Your task to perform on an android device: What's the weather going to be tomorrow? Image 0: 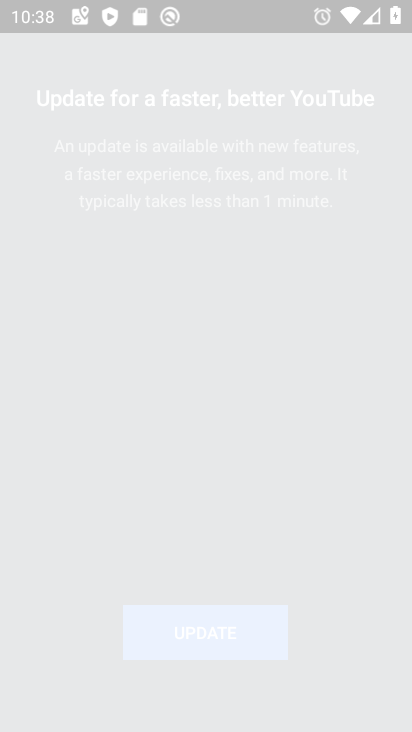
Step 0: drag from (329, 575) to (281, 304)
Your task to perform on an android device: What's the weather going to be tomorrow? Image 1: 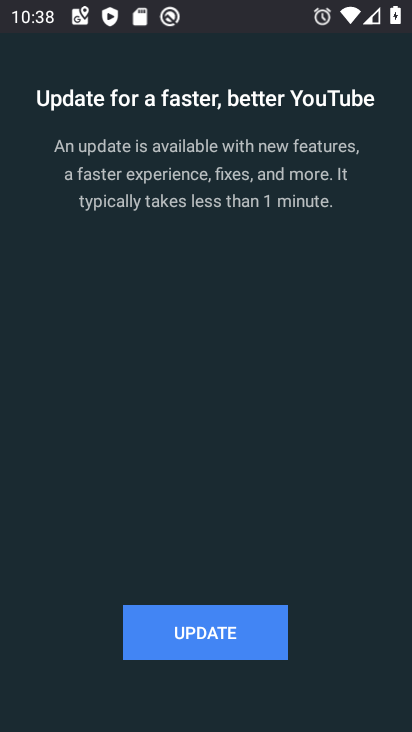
Step 1: press home button
Your task to perform on an android device: What's the weather going to be tomorrow? Image 2: 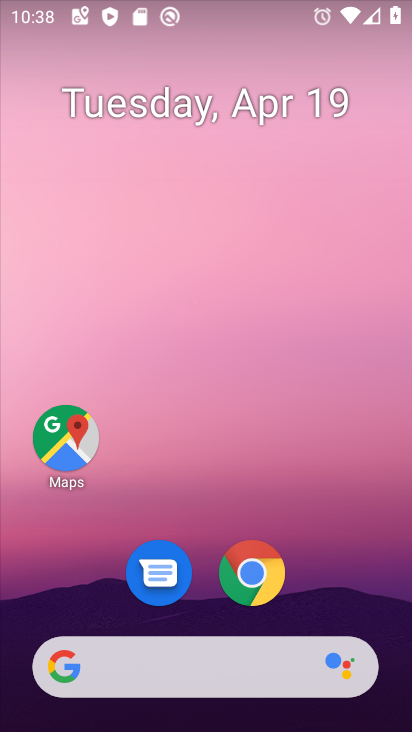
Step 2: click (256, 578)
Your task to perform on an android device: What's the weather going to be tomorrow? Image 3: 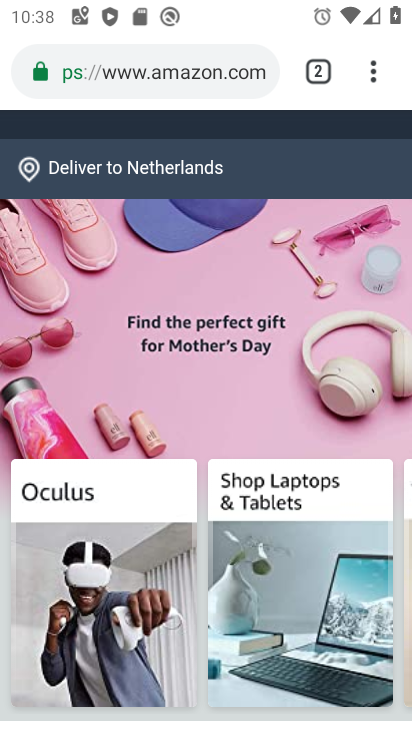
Step 3: click (314, 72)
Your task to perform on an android device: What's the weather going to be tomorrow? Image 4: 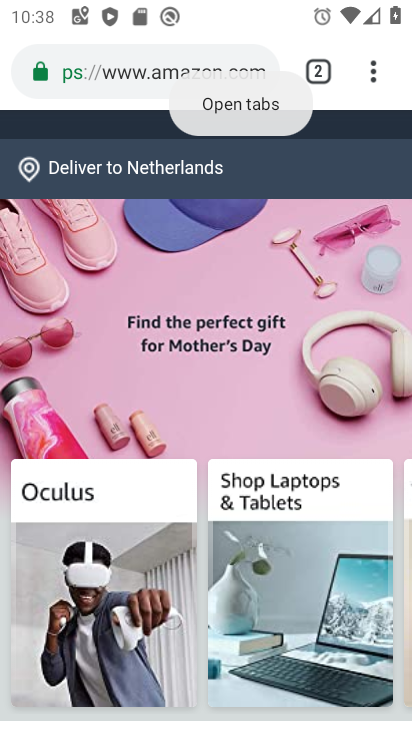
Step 4: click (315, 71)
Your task to perform on an android device: What's the weather going to be tomorrow? Image 5: 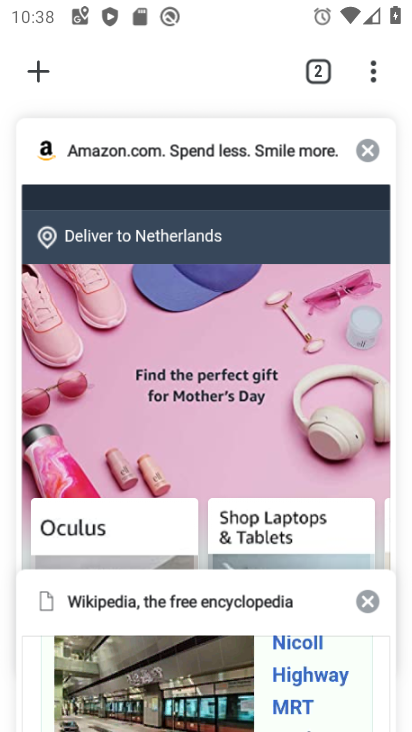
Step 5: click (40, 69)
Your task to perform on an android device: What's the weather going to be tomorrow? Image 6: 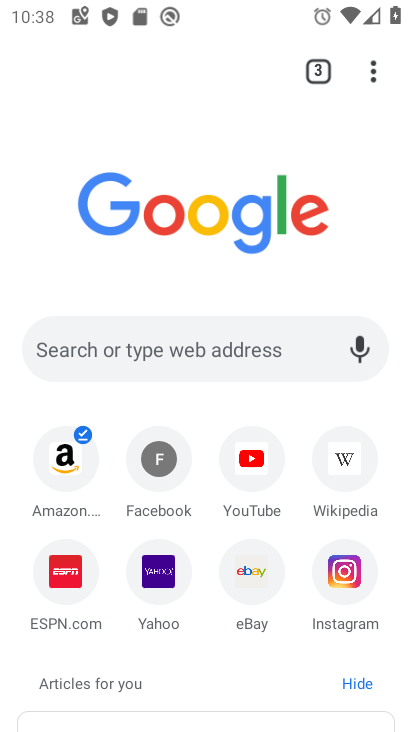
Step 6: click (159, 343)
Your task to perform on an android device: What's the weather going to be tomorrow? Image 7: 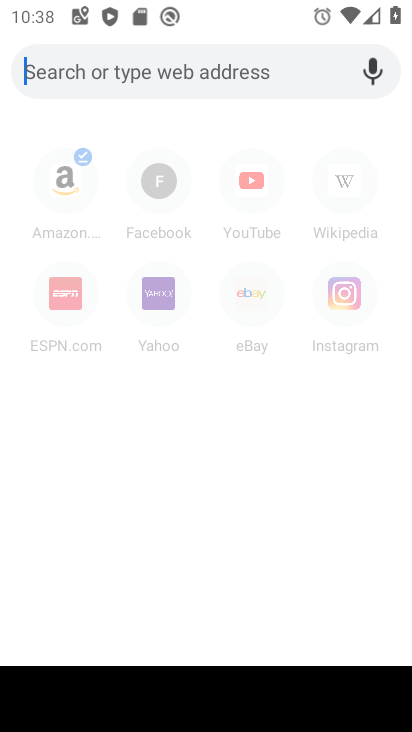
Step 7: type "what's the weather going to be tomorrow"
Your task to perform on an android device: What's the weather going to be tomorrow? Image 8: 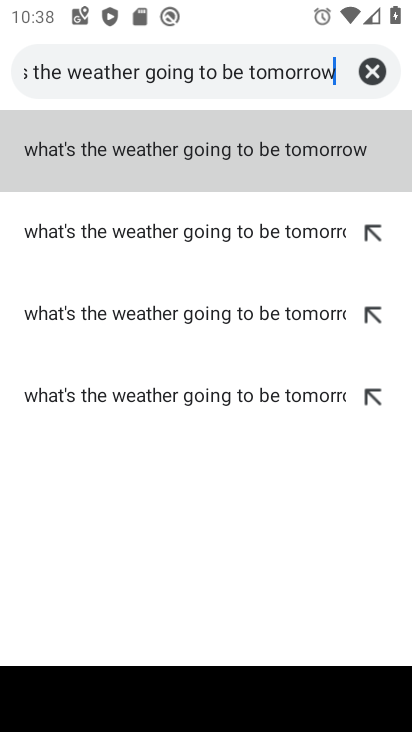
Step 8: click (112, 157)
Your task to perform on an android device: What's the weather going to be tomorrow? Image 9: 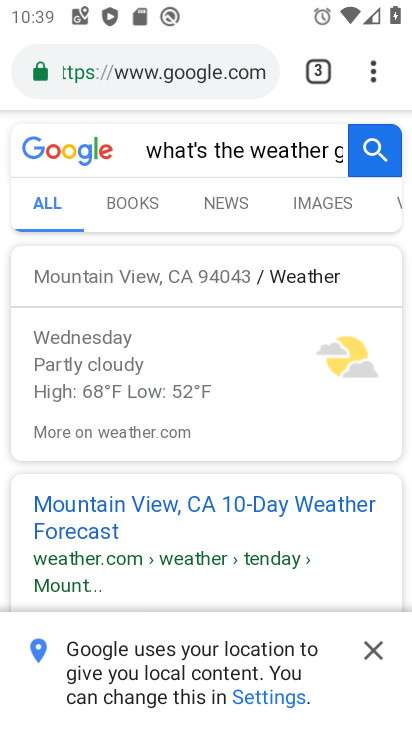
Step 9: drag from (166, 560) to (121, 574)
Your task to perform on an android device: What's the weather going to be tomorrow? Image 10: 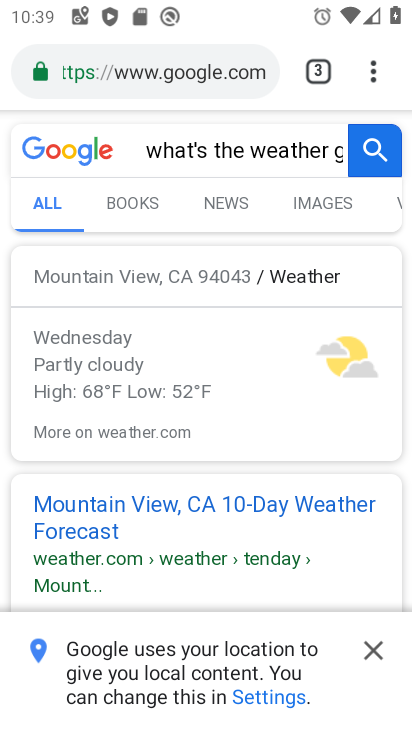
Step 10: click (121, 555)
Your task to perform on an android device: What's the weather going to be tomorrow? Image 11: 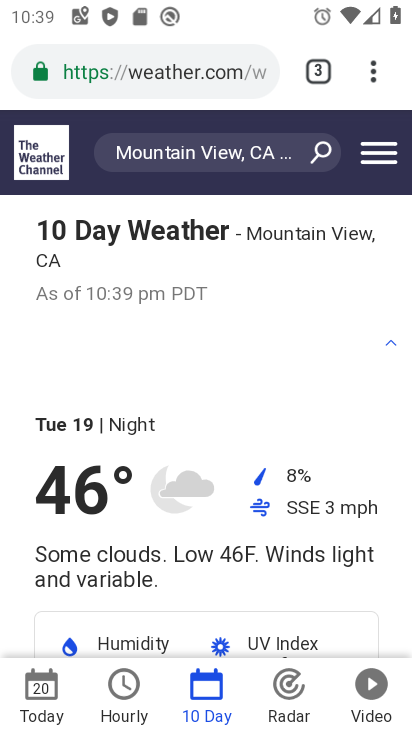
Step 11: task complete